Your task to perform on an android device: turn pop-ups on in chrome Image 0: 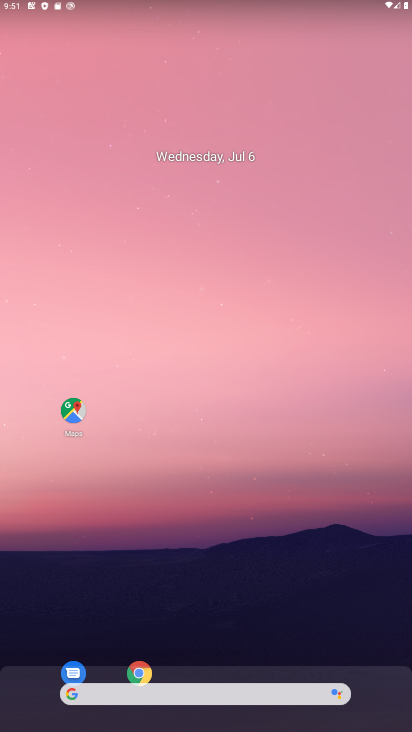
Step 0: click (139, 681)
Your task to perform on an android device: turn pop-ups on in chrome Image 1: 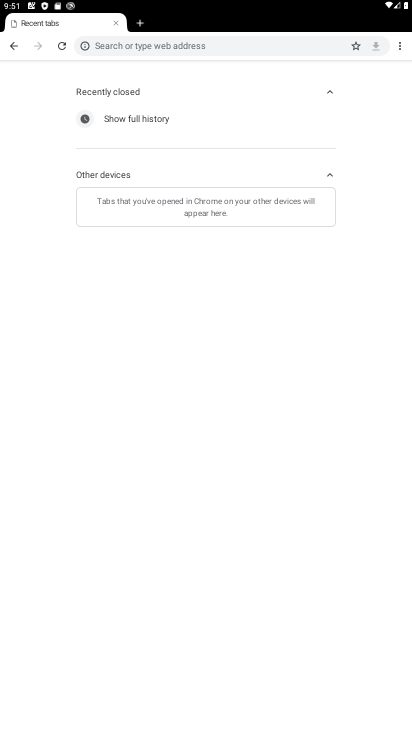
Step 1: click (402, 49)
Your task to perform on an android device: turn pop-ups on in chrome Image 2: 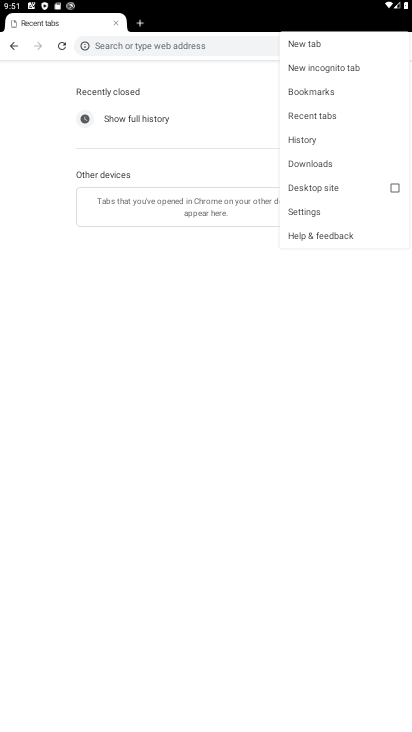
Step 2: click (317, 215)
Your task to perform on an android device: turn pop-ups on in chrome Image 3: 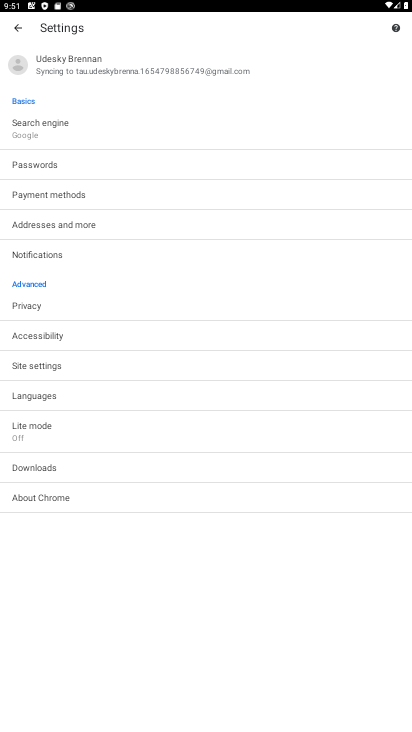
Step 3: click (163, 362)
Your task to perform on an android device: turn pop-ups on in chrome Image 4: 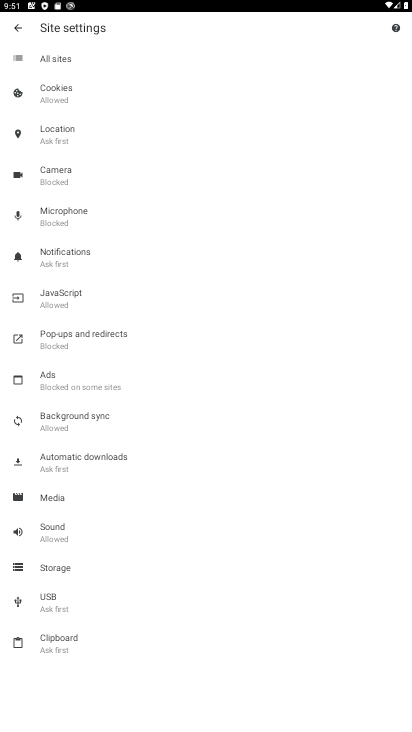
Step 4: click (63, 346)
Your task to perform on an android device: turn pop-ups on in chrome Image 5: 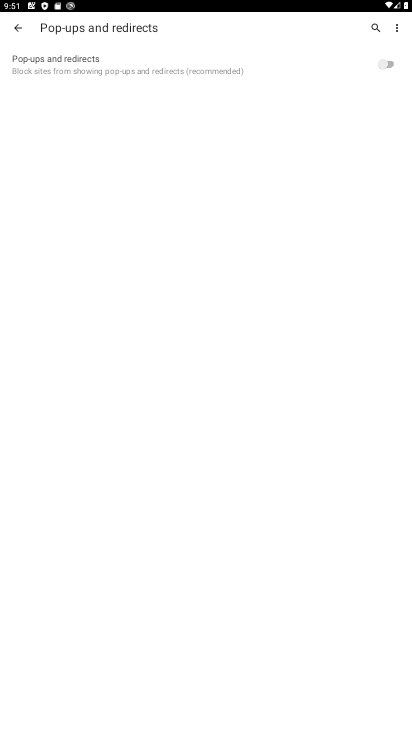
Step 5: click (393, 65)
Your task to perform on an android device: turn pop-ups on in chrome Image 6: 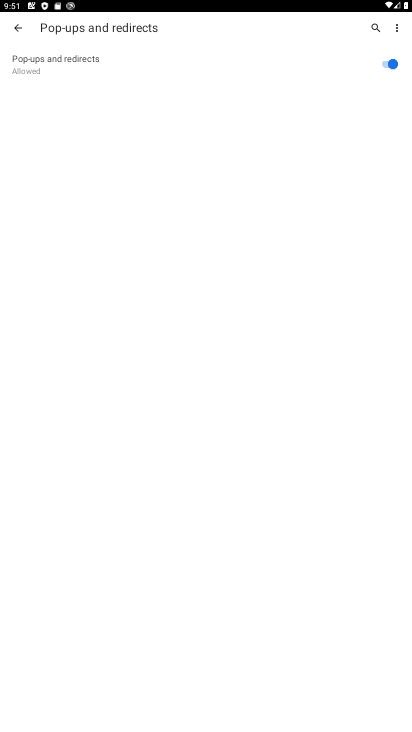
Step 6: task complete